Your task to perform on an android device: toggle translation in the chrome app Image 0: 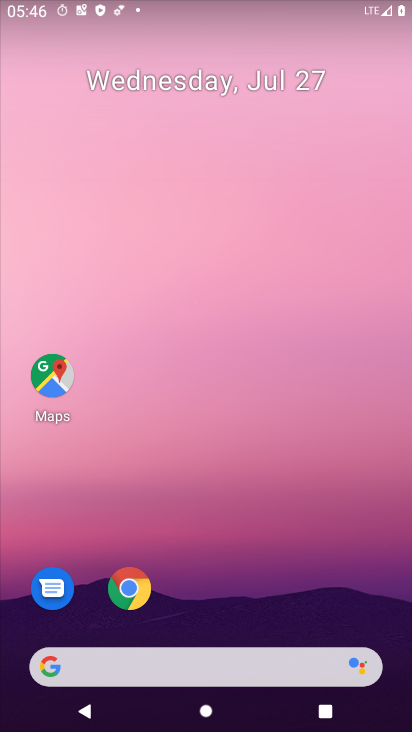
Step 0: press home button
Your task to perform on an android device: toggle translation in the chrome app Image 1: 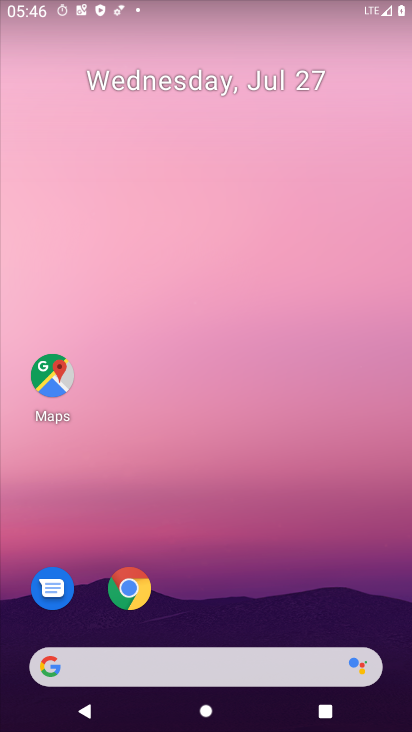
Step 1: drag from (271, 676) to (329, 40)
Your task to perform on an android device: toggle translation in the chrome app Image 2: 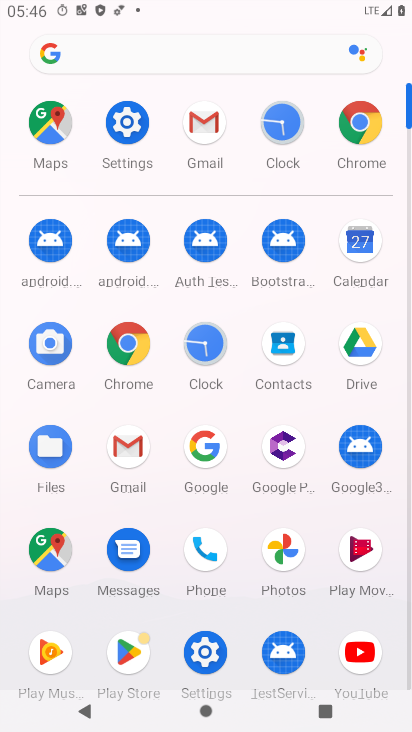
Step 2: click (131, 335)
Your task to perform on an android device: toggle translation in the chrome app Image 3: 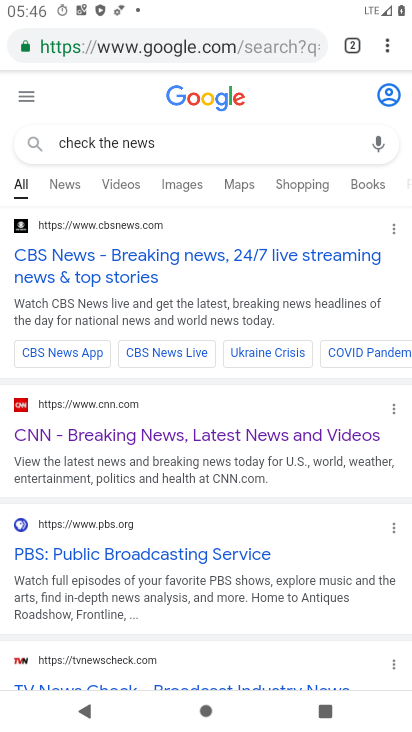
Step 3: click (377, 42)
Your task to perform on an android device: toggle translation in the chrome app Image 4: 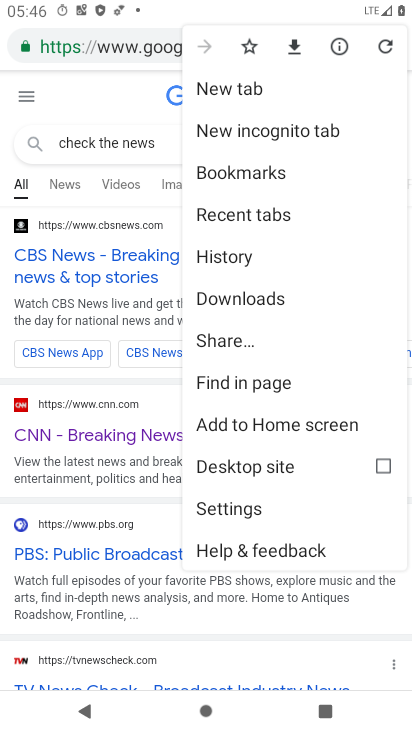
Step 4: click (247, 513)
Your task to perform on an android device: toggle translation in the chrome app Image 5: 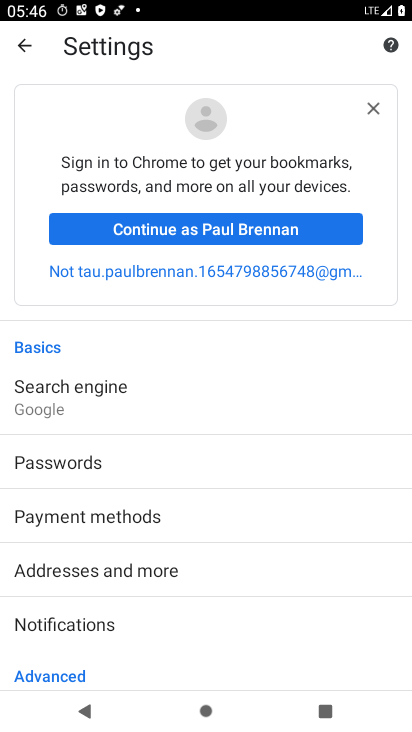
Step 5: drag from (75, 662) to (152, 168)
Your task to perform on an android device: toggle translation in the chrome app Image 6: 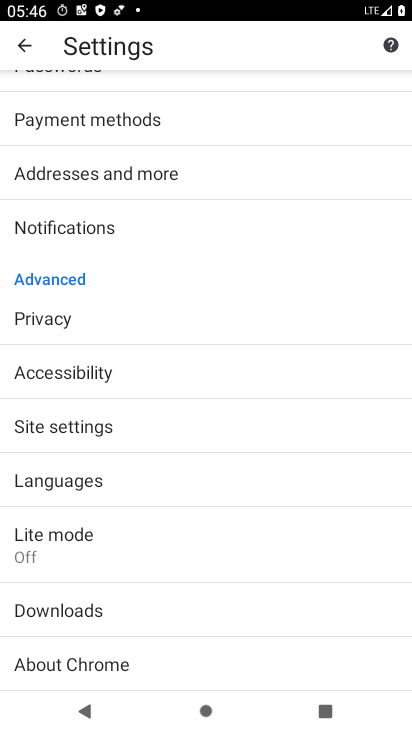
Step 6: click (99, 481)
Your task to perform on an android device: toggle translation in the chrome app Image 7: 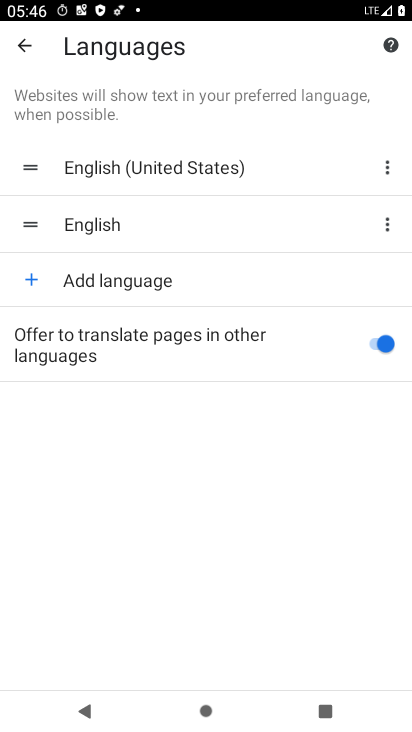
Step 7: click (370, 339)
Your task to perform on an android device: toggle translation in the chrome app Image 8: 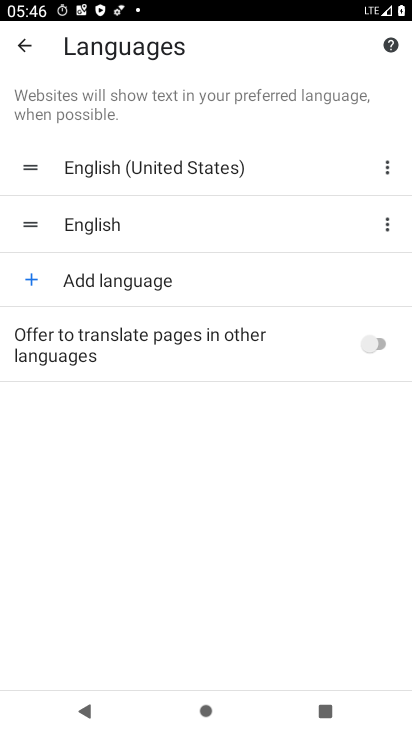
Step 8: task complete